Your task to perform on an android device: Turn on the flashlight Image 0: 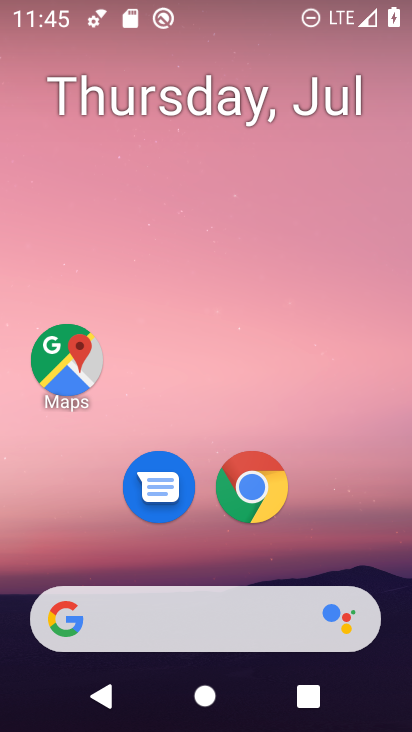
Step 0: drag from (217, 6) to (223, 383)
Your task to perform on an android device: Turn on the flashlight Image 1: 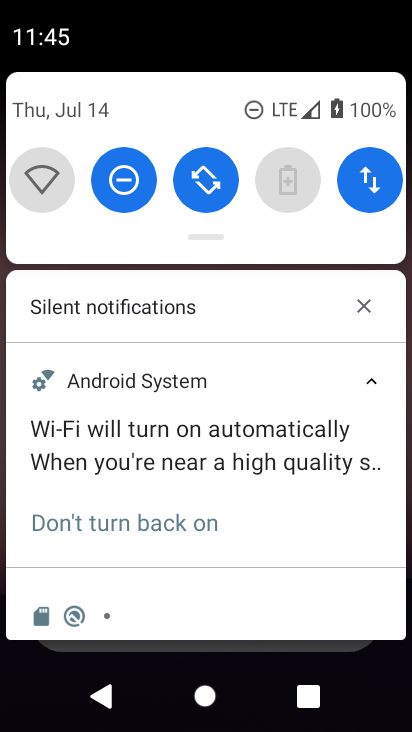
Step 1: task complete